Your task to perform on an android device: Search for Mexican restaurants on Maps Image 0: 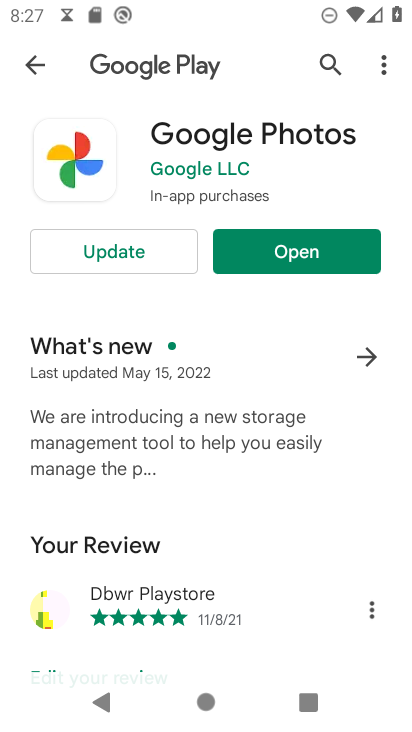
Step 0: press home button
Your task to perform on an android device: Search for Mexican restaurants on Maps Image 1: 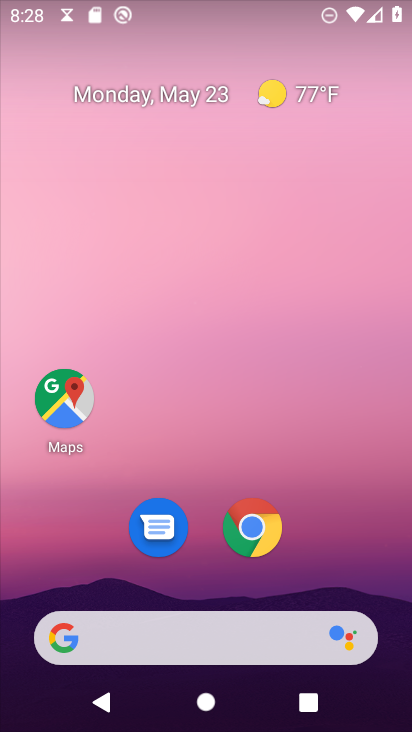
Step 1: drag from (273, 657) to (297, 317)
Your task to perform on an android device: Search for Mexican restaurants on Maps Image 2: 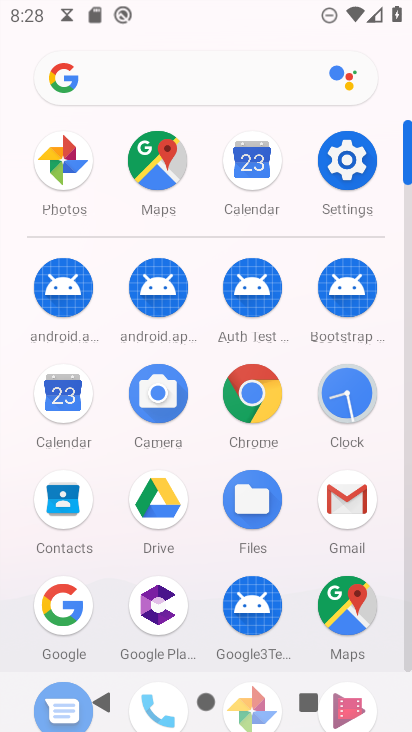
Step 2: click (176, 147)
Your task to perform on an android device: Search for Mexican restaurants on Maps Image 3: 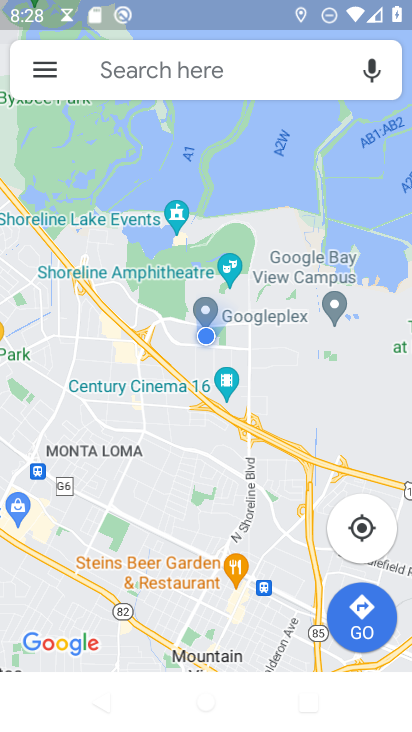
Step 3: click (169, 62)
Your task to perform on an android device: Search for Mexican restaurants on Maps Image 4: 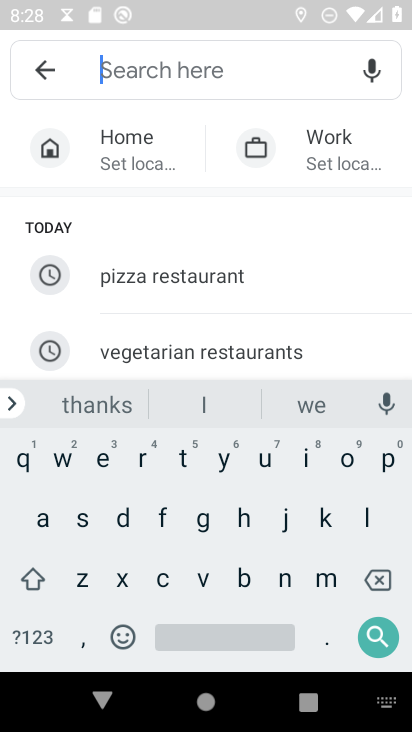
Step 4: click (331, 572)
Your task to perform on an android device: Search for Mexican restaurants on Maps Image 5: 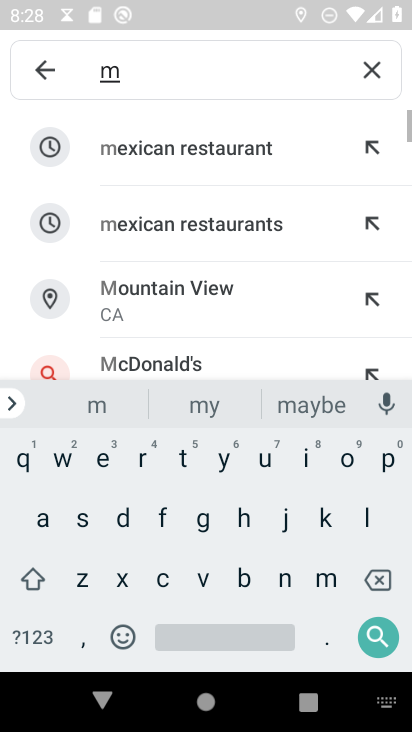
Step 5: click (208, 164)
Your task to perform on an android device: Search for Mexican restaurants on Maps Image 6: 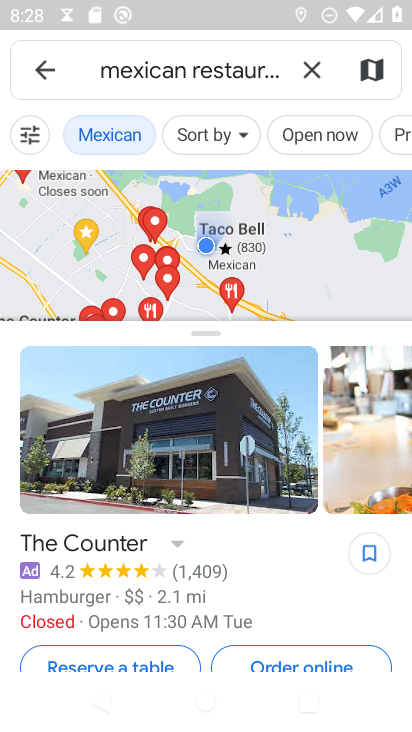
Step 6: click (103, 261)
Your task to perform on an android device: Search for Mexican restaurants on Maps Image 7: 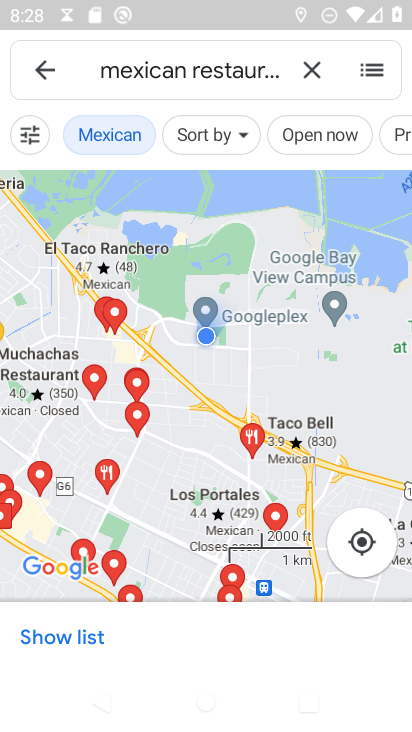
Step 7: task complete